Your task to perform on an android device: turn off translation in the chrome app Image 0: 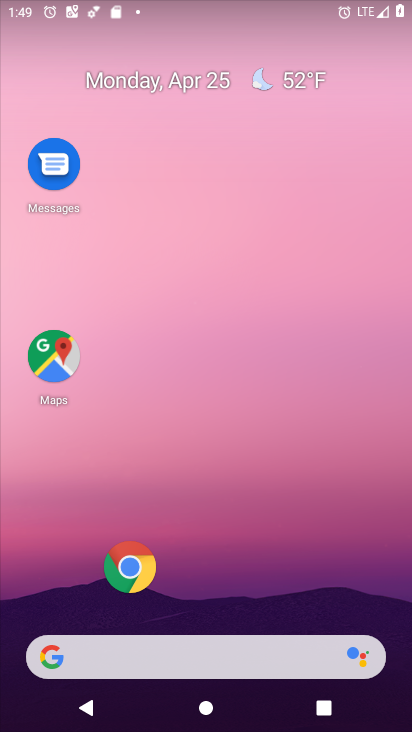
Step 0: drag from (262, 556) to (254, 259)
Your task to perform on an android device: turn off translation in the chrome app Image 1: 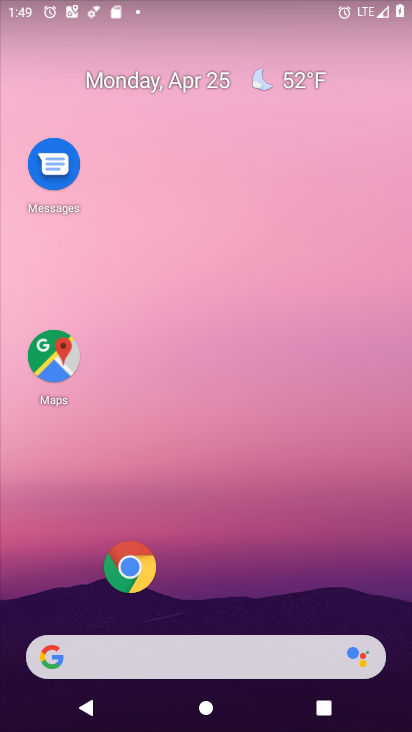
Step 1: click (117, 576)
Your task to perform on an android device: turn off translation in the chrome app Image 2: 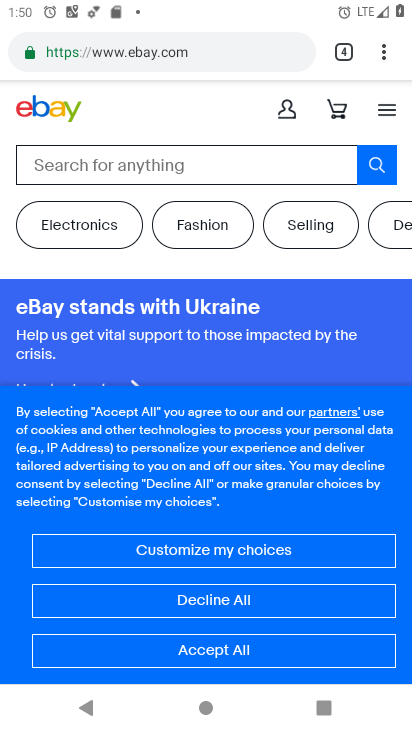
Step 2: click (382, 58)
Your task to perform on an android device: turn off translation in the chrome app Image 3: 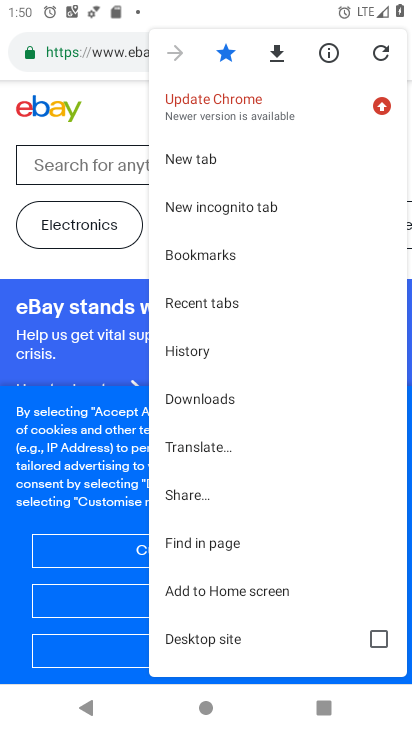
Step 3: click (234, 456)
Your task to perform on an android device: turn off translation in the chrome app Image 4: 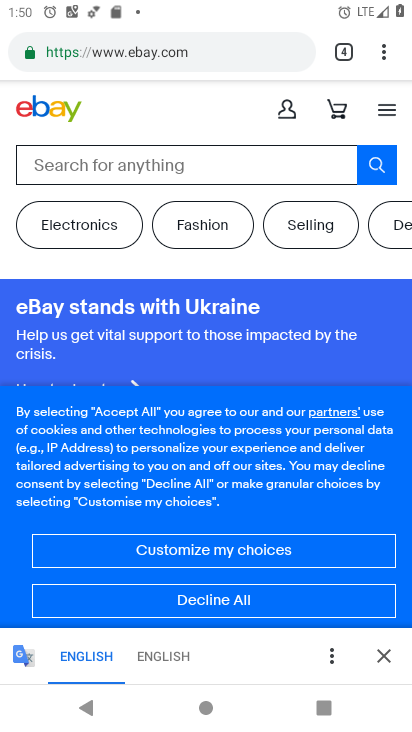
Step 4: click (330, 650)
Your task to perform on an android device: turn off translation in the chrome app Image 5: 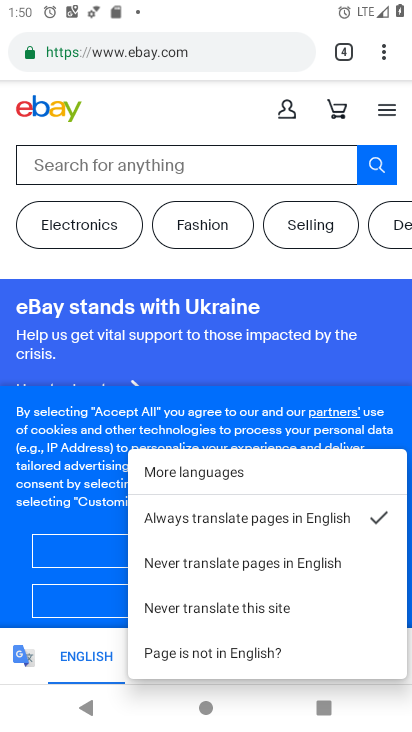
Step 5: click (249, 608)
Your task to perform on an android device: turn off translation in the chrome app Image 6: 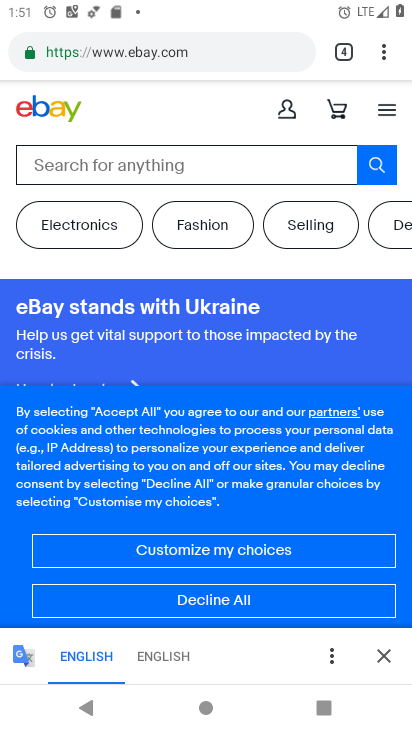
Step 6: task complete